Your task to perform on an android device: Open the phone app and click the voicemail tab. Image 0: 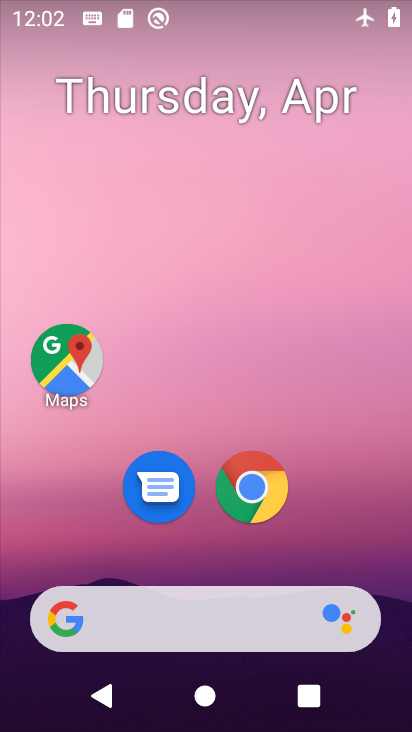
Step 0: drag from (274, 630) to (404, 354)
Your task to perform on an android device: Open the phone app and click the voicemail tab. Image 1: 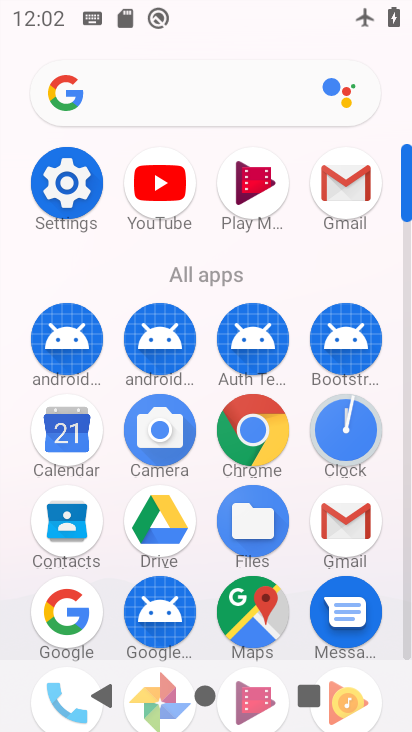
Step 1: drag from (107, 569) to (188, 366)
Your task to perform on an android device: Open the phone app and click the voicemail tab. Image 2: 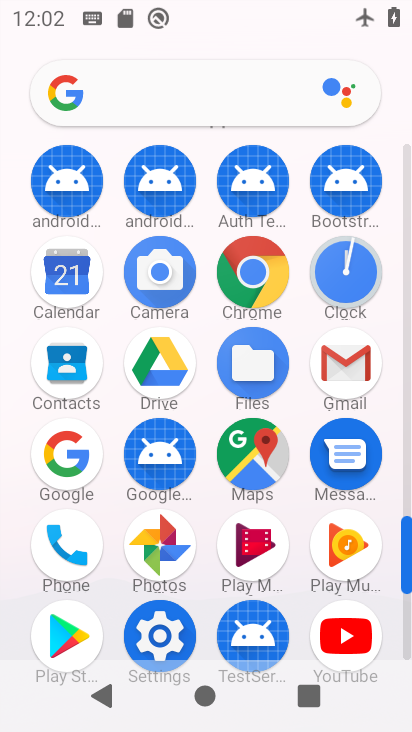
Step 2: click (72, 536)
Your task to perform on an android device: Open the phone app and click the voicemail tab. Image 3: 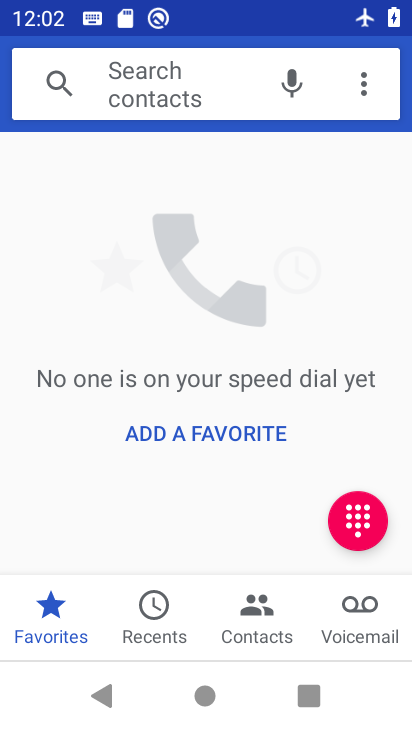
Step 3: click (338, 631)
Your task to perform on an android device: Open the phone app and click the voicemail tab. Image 4: 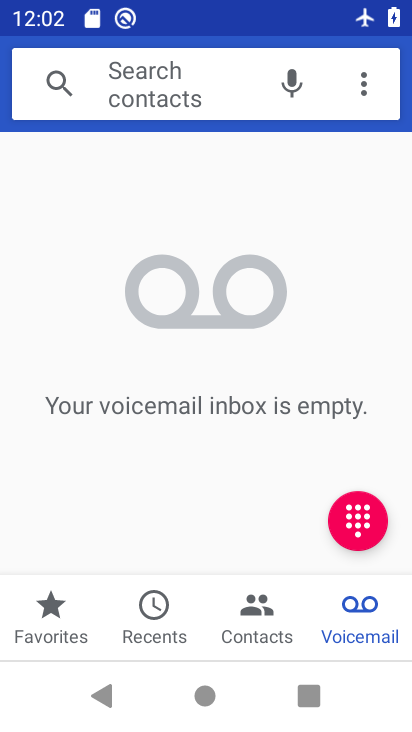
Step 4: task complete